Your task to perform on an android device: Clear all items from cart on costco.com. Image 0: 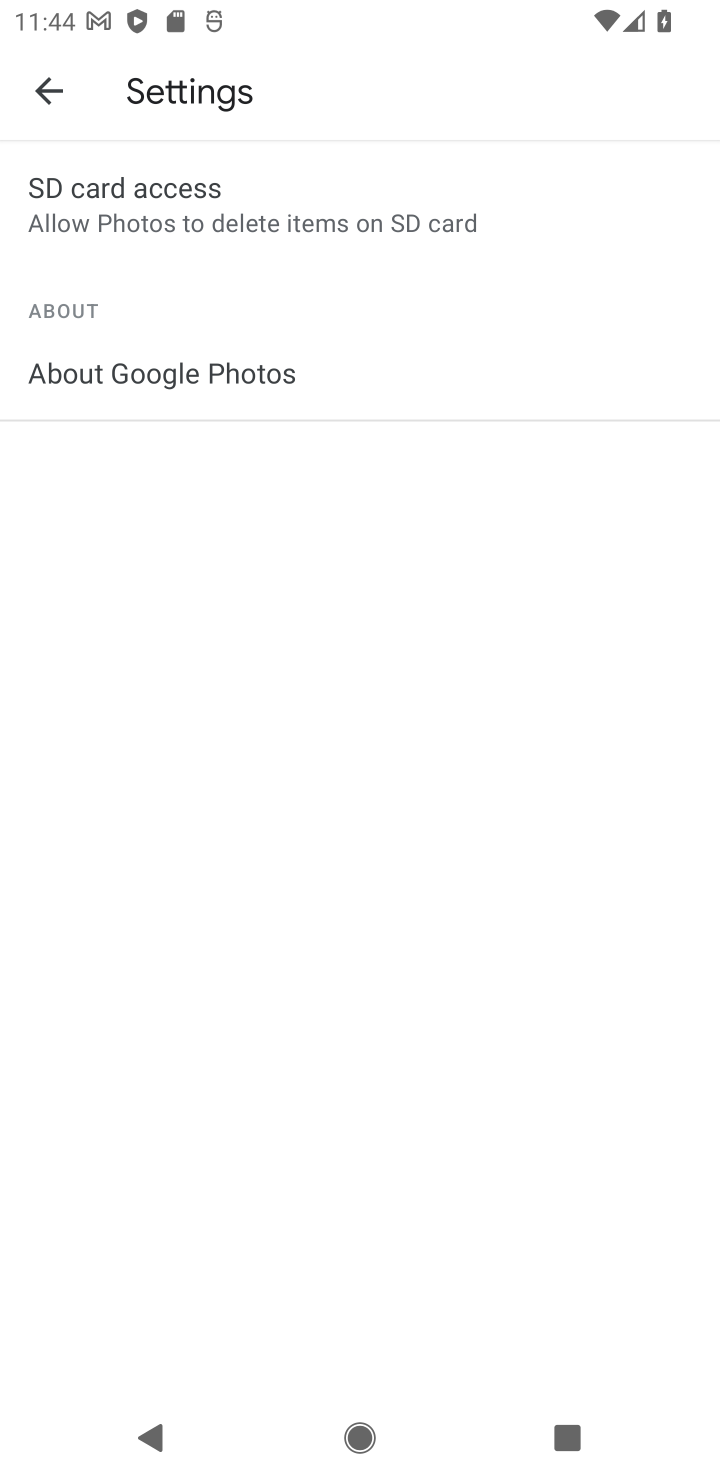
Step 0: press home button
Your task to perform on an android device: Clear all items from cart on costco.com. Image 1: 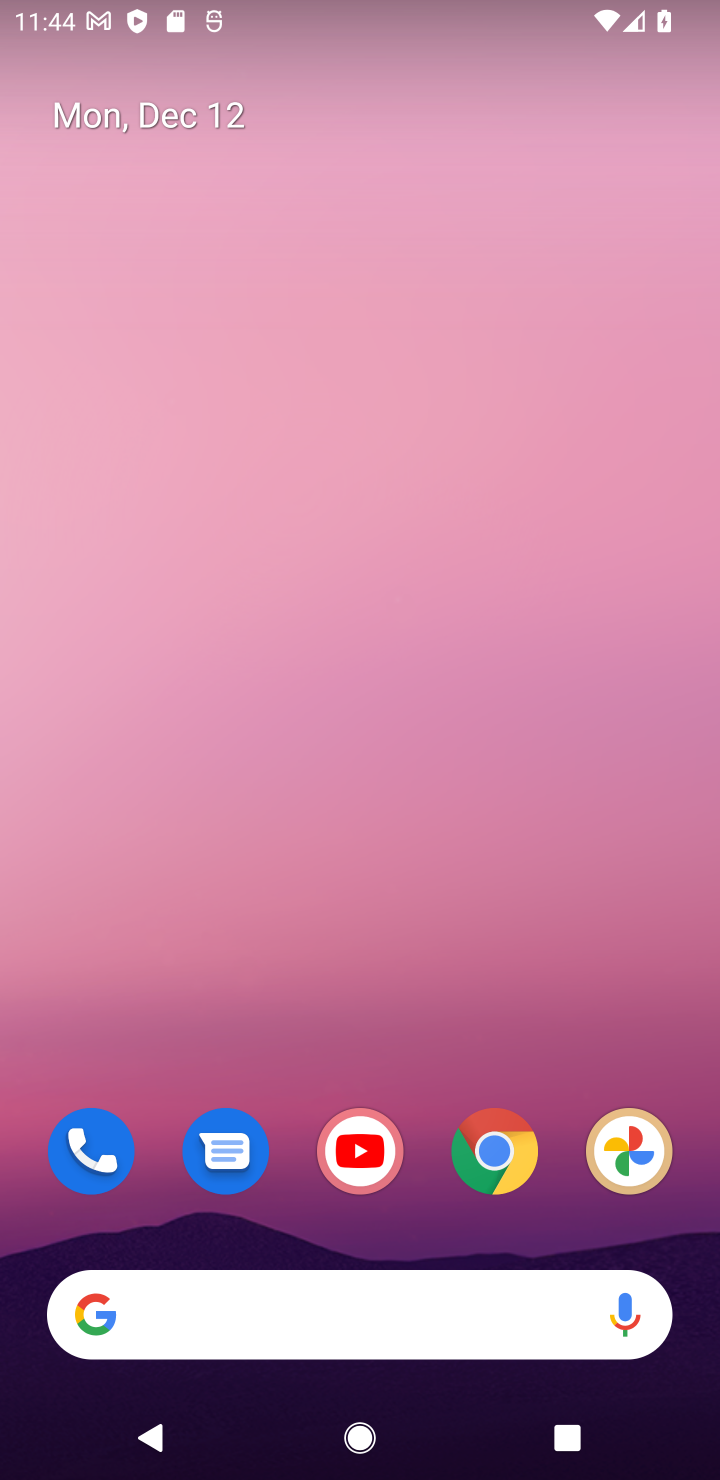
Step 1: drag from (456, 1274) to (484, 447)
Your task to perform on an android device: Clear all items from cart on costco.com. Image 2: 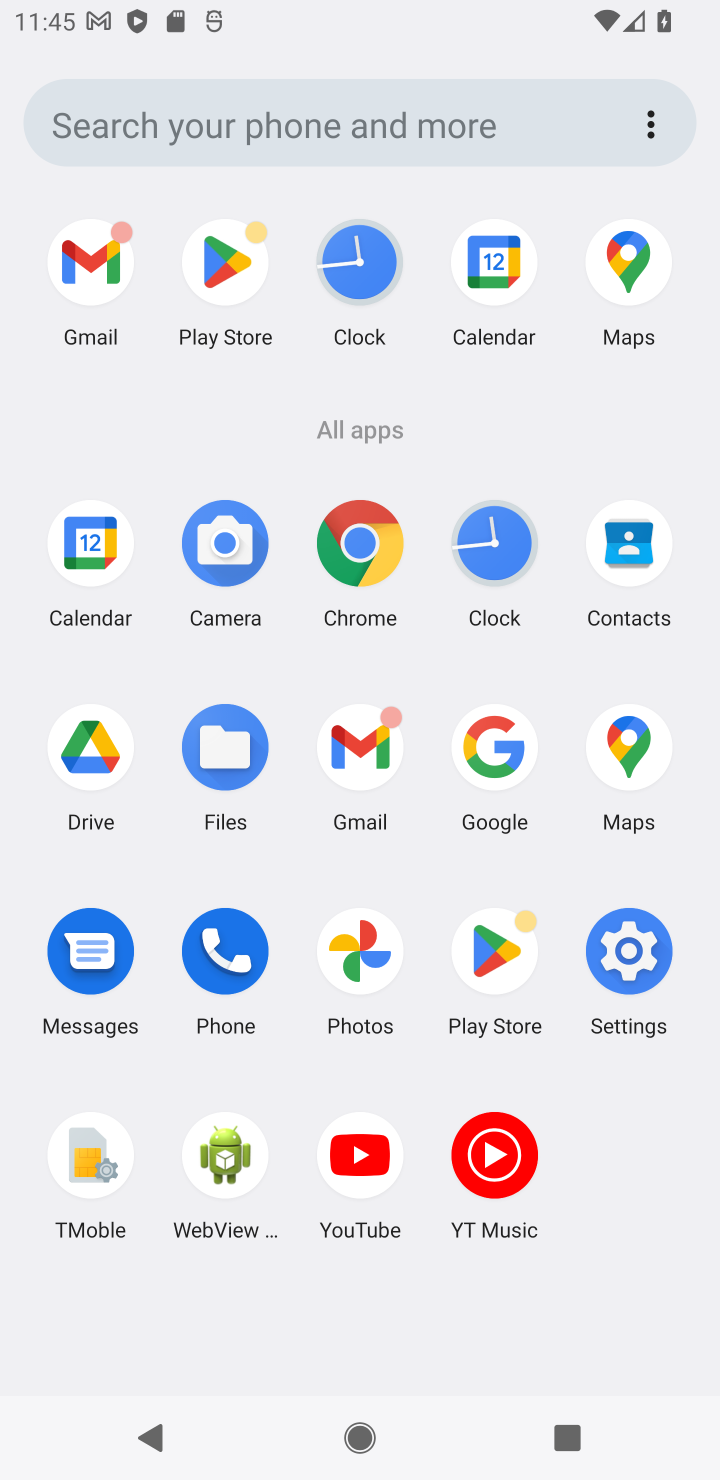
Step 2: click (490, 751)
Your task to perform on an android device: Clear all items from cart on costco.com. Image 3: 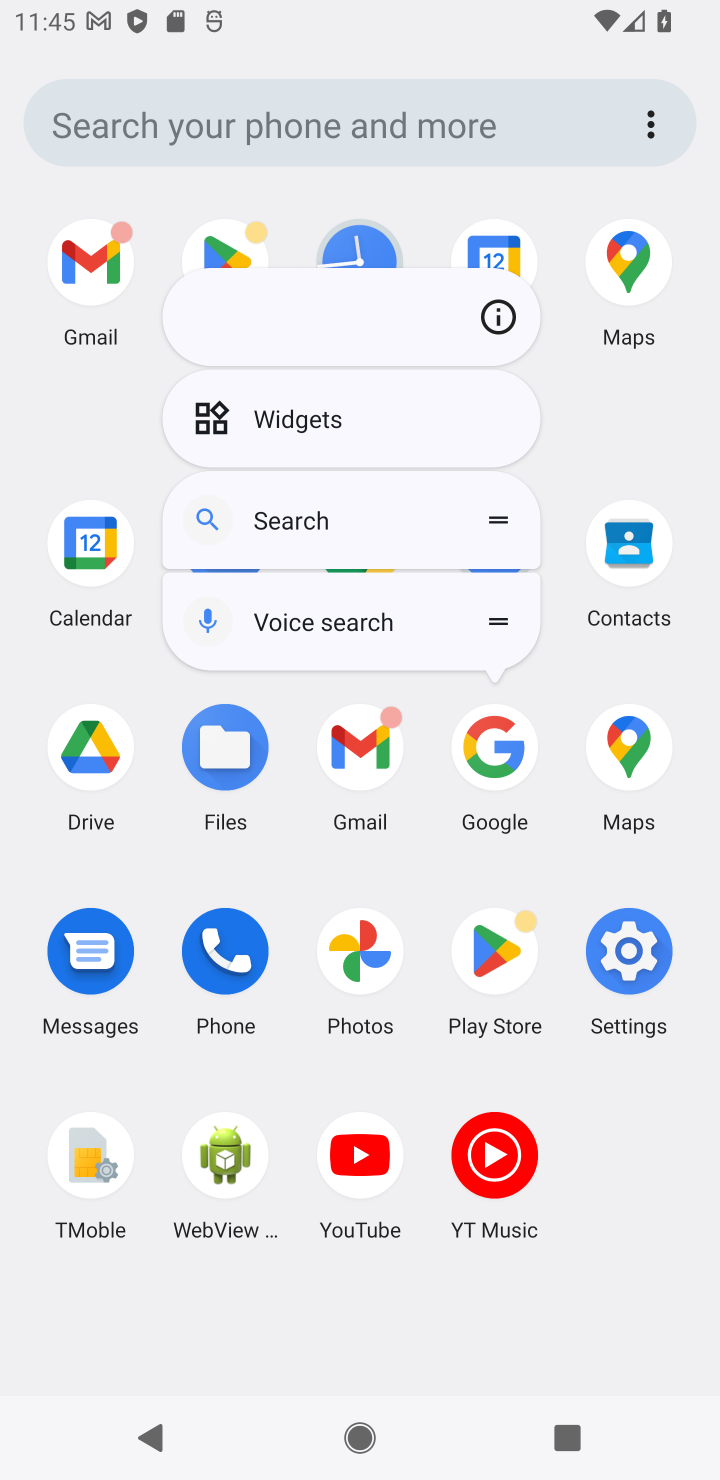
Step 3: click (492, 772)
Your task to perform on an android device: Clear all items from cart on costco.com. Image 4: 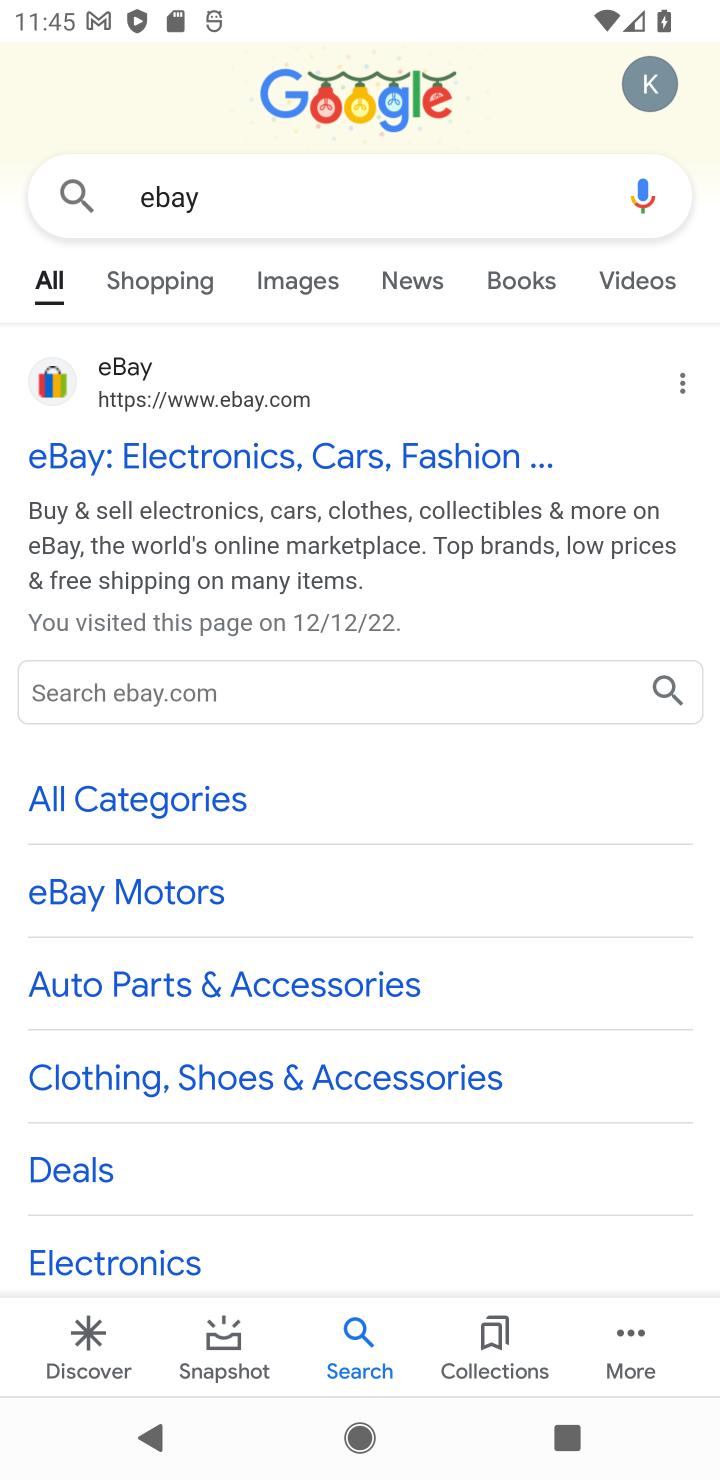
Step 4: click (171, 197)
Your task to perform on an android device: Clear all items from cart on costco.com. Image 5: 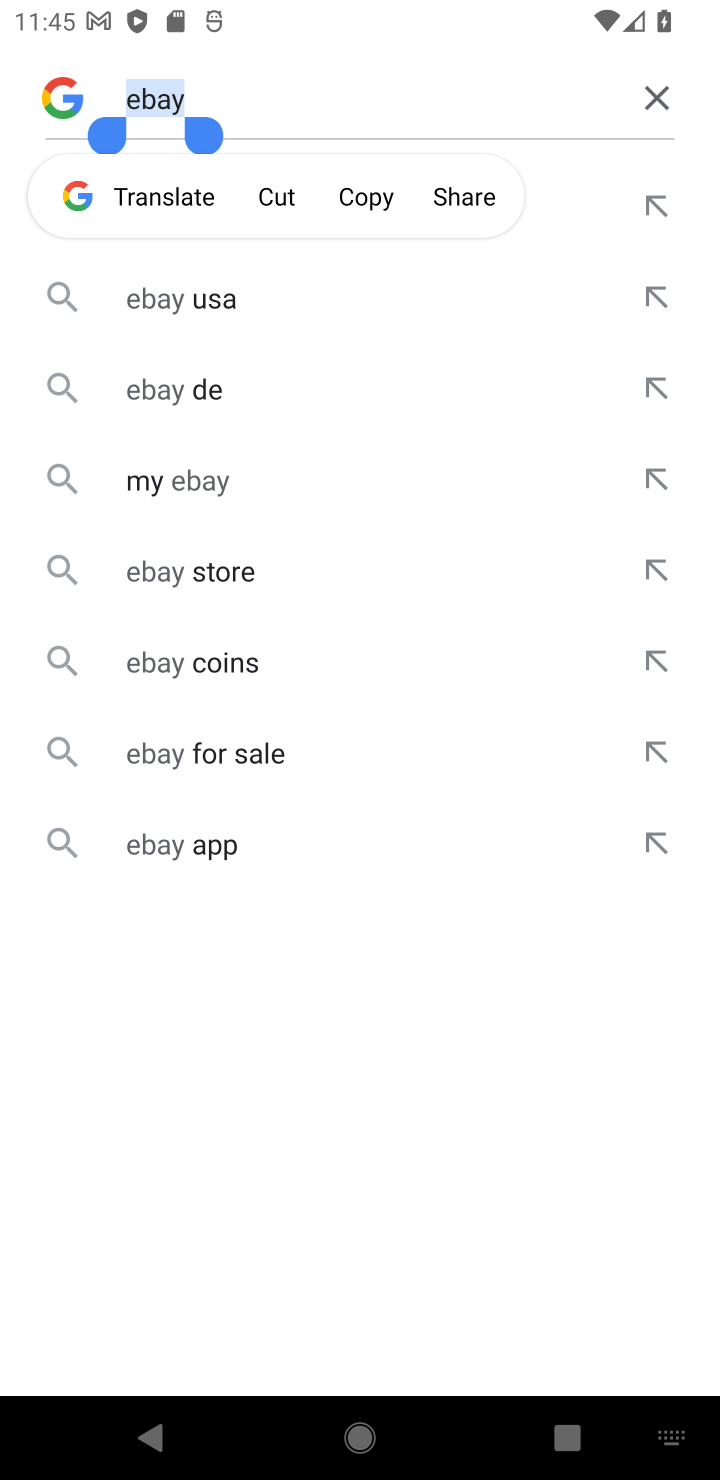
Step 5: click (662, 102)
Your task to perform on an android device: Clear all items from cart on costco.com. Image 6: 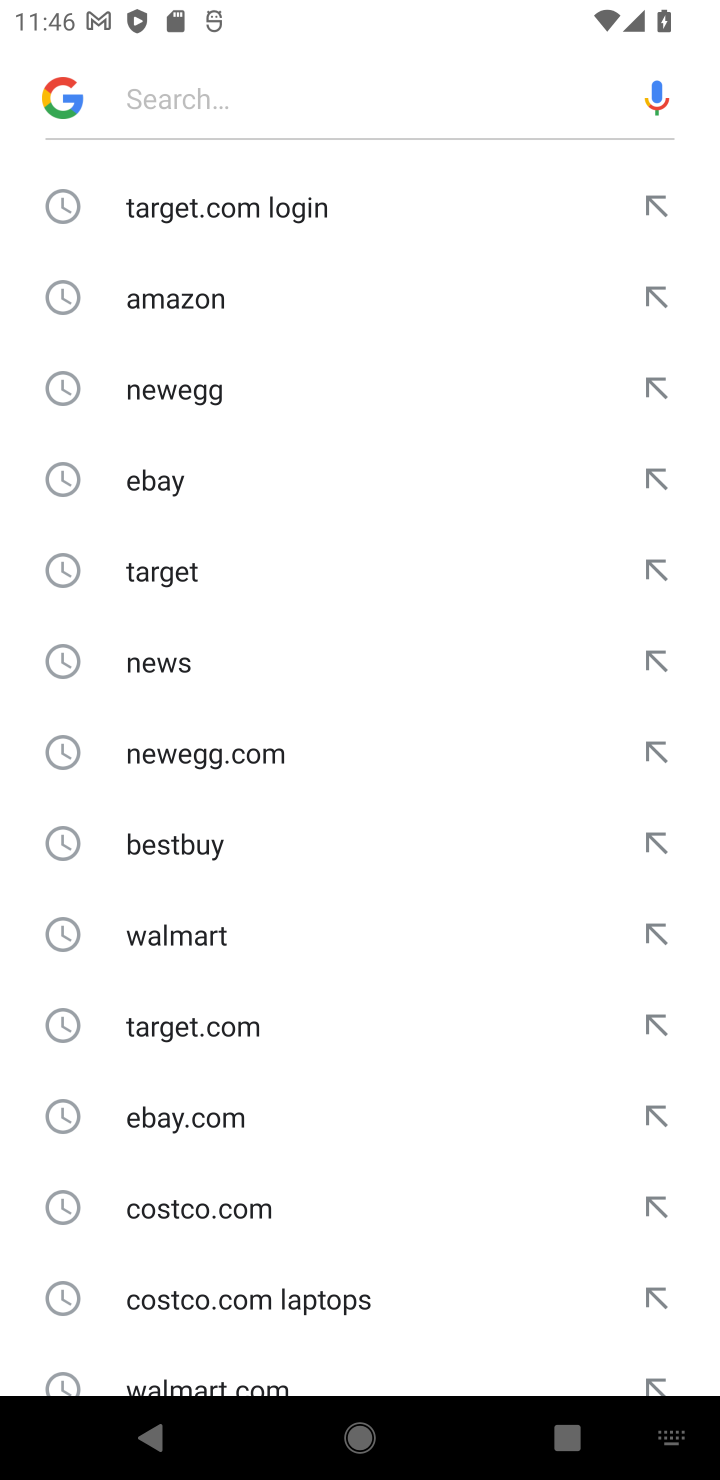
Step 6: click (183, 1215)
Your task to perform on an android device: Clear all items from cart on costco.com. Image 7: 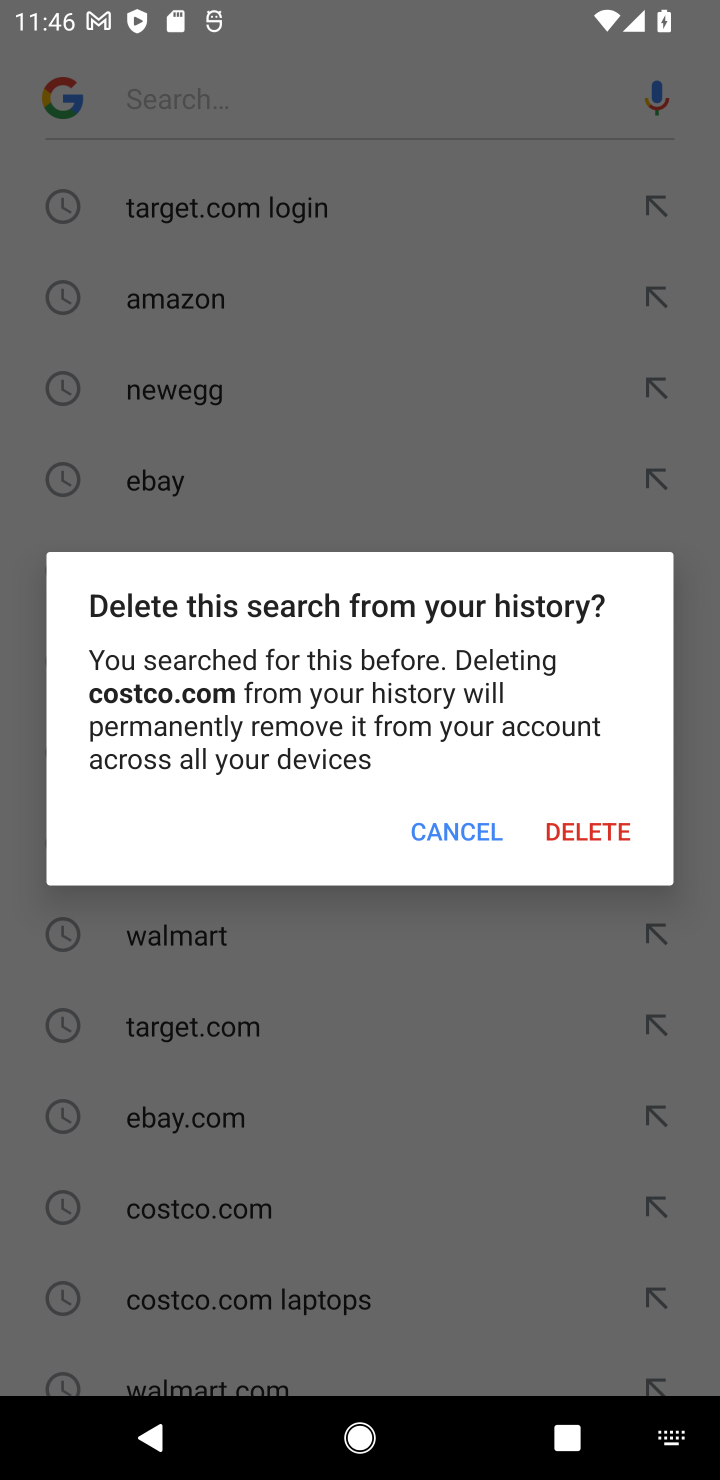
Step 7: click (467, 826)
Your task to perform on an android device: Clear all items from cart on costco.com. Image 8: 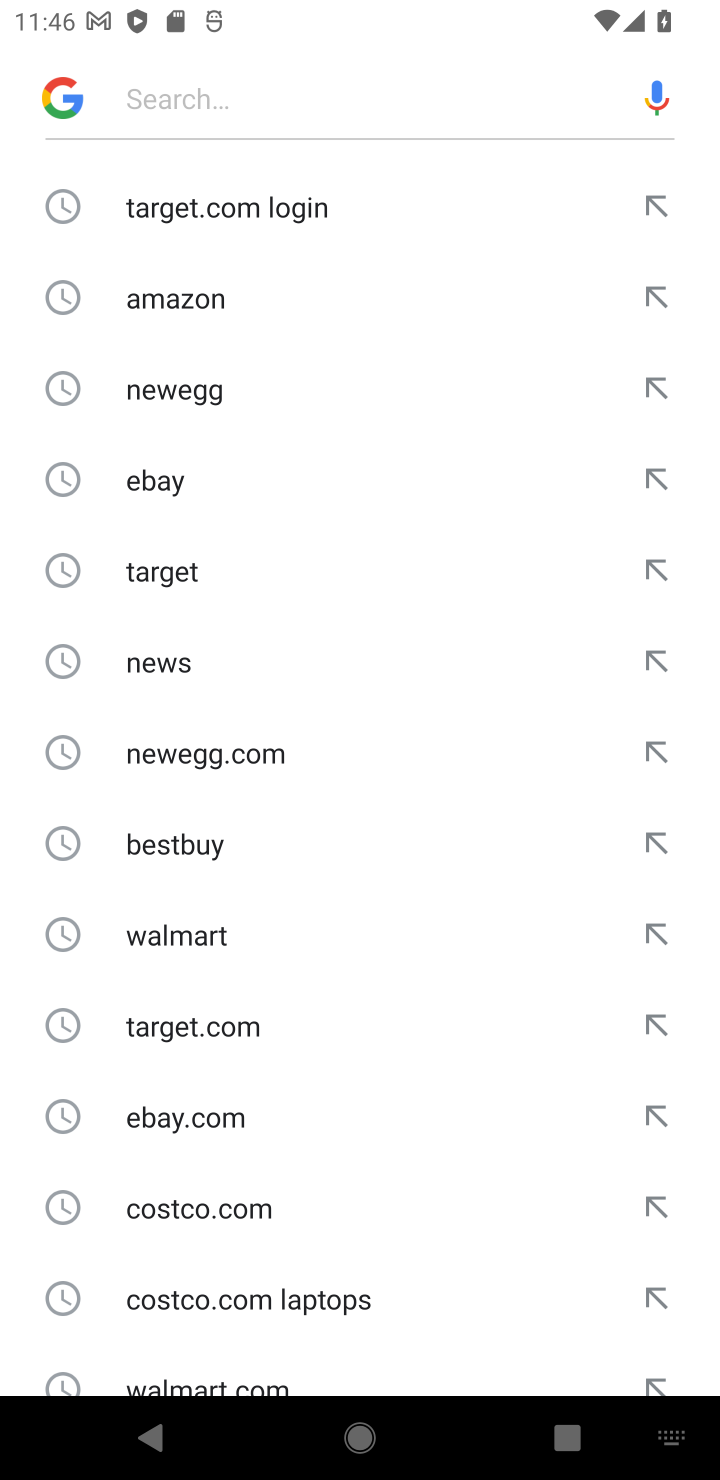
Step 8: click (181, 1213)
Your task to perform on an android device: Clear all items from cart on costco.com. Image 9: 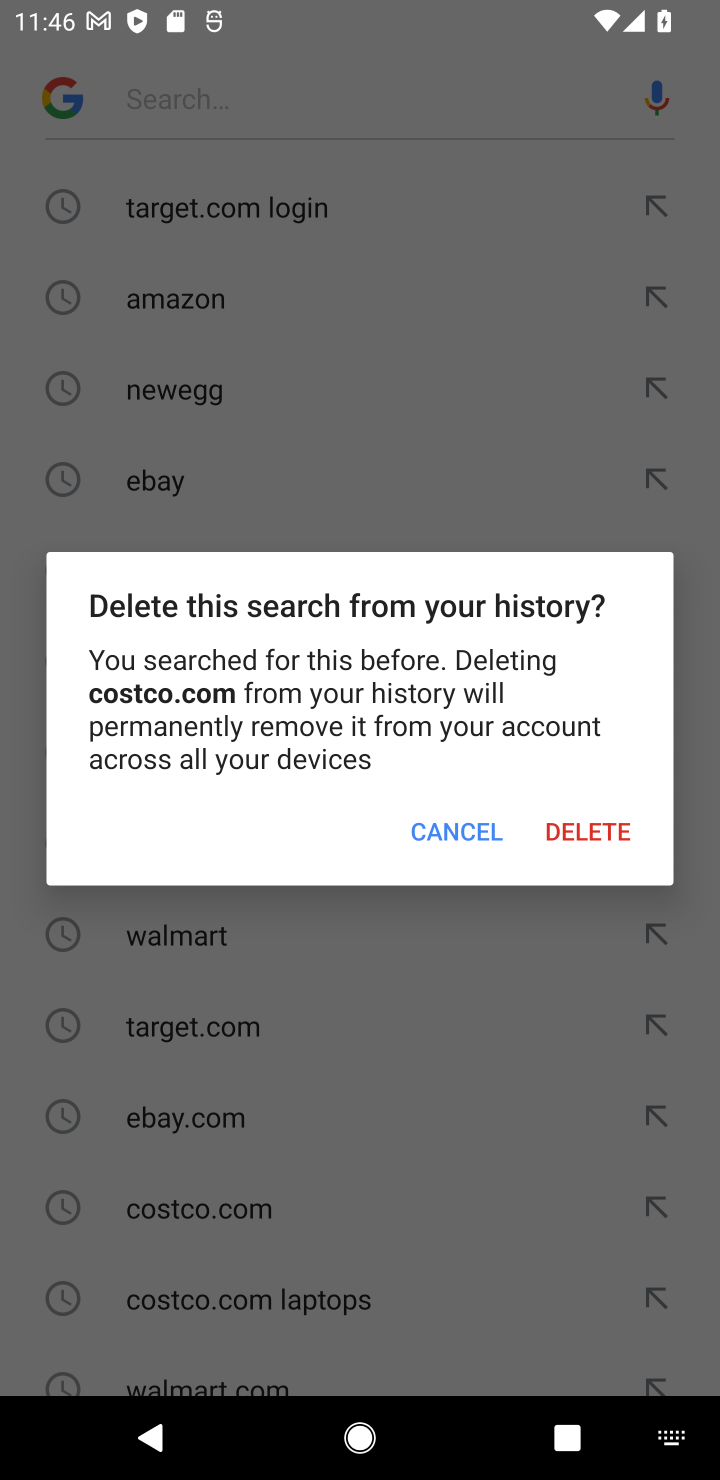
Step 9: click (420, 825)
Your task to perform on an android device: Clear all items from cart on costco.com. Image 10: 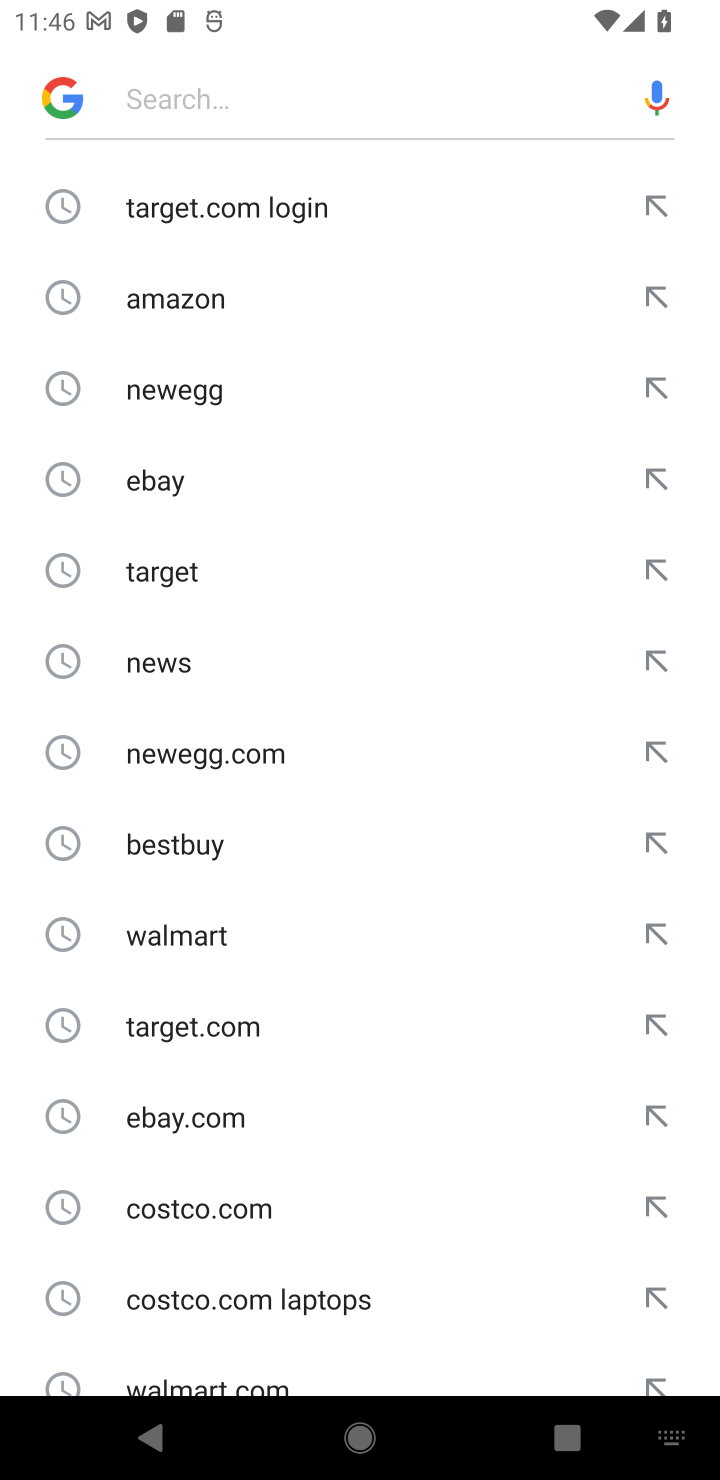
Step 10: click (662, 1212)
Your task to perform on an android device: Clear all items from cart on costco.com. Image 11: 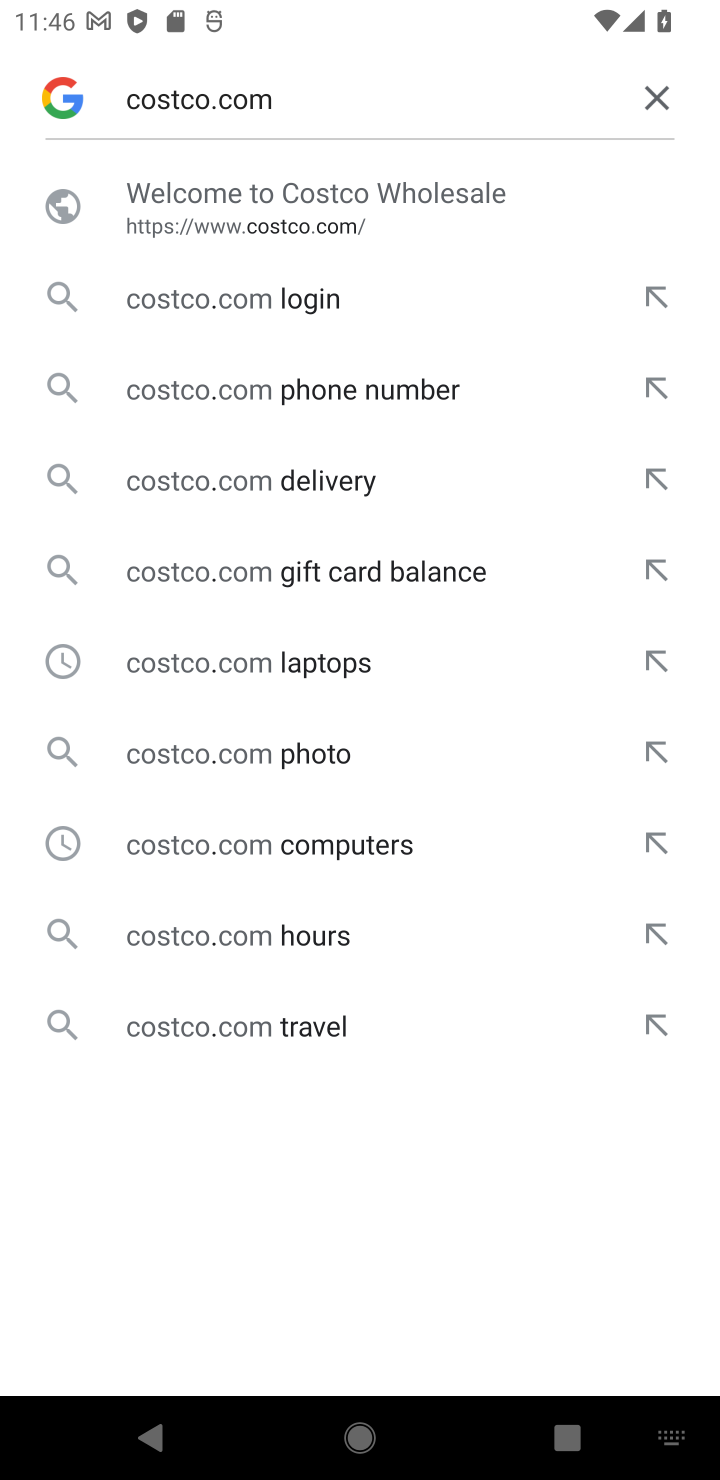
Step 11: click (174, 207)
Your task to perform on an android device: Clear all items from cart on costco.com. Image 12: 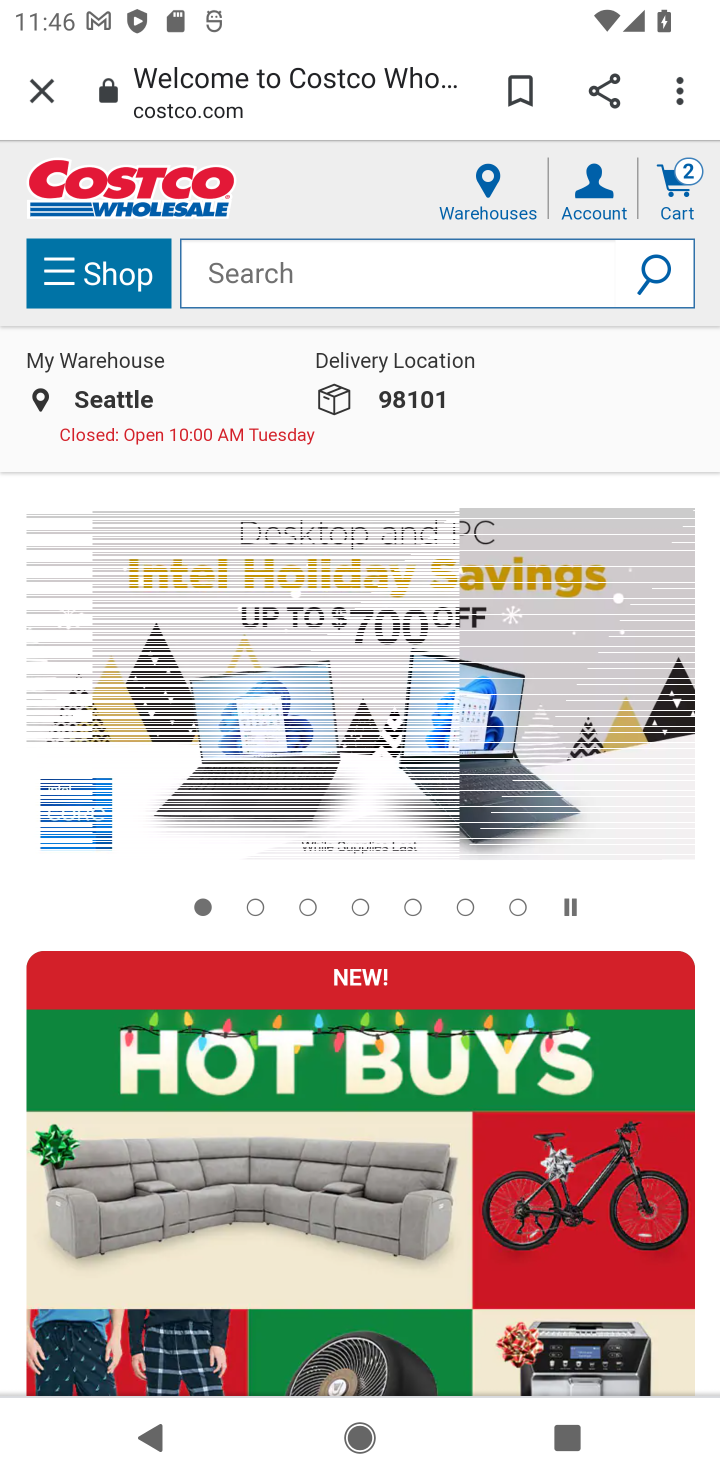
Step 12: click (659, 184)
Your task to perform on an android device: Clear all items from cart on costco.com. Image 13: 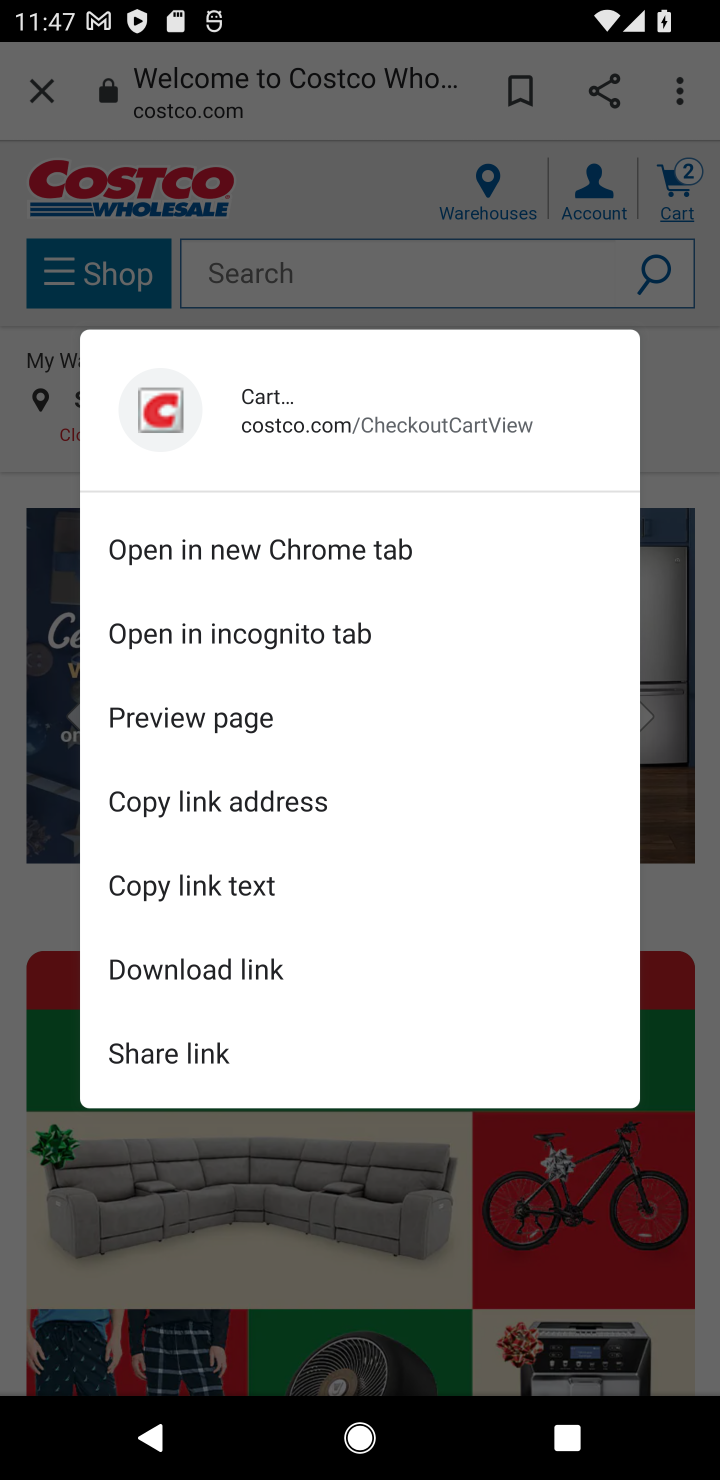
Step 13: click (655, 390)
Your task to perform on an android device: Clear all items from cart on costco.com. Image 14: 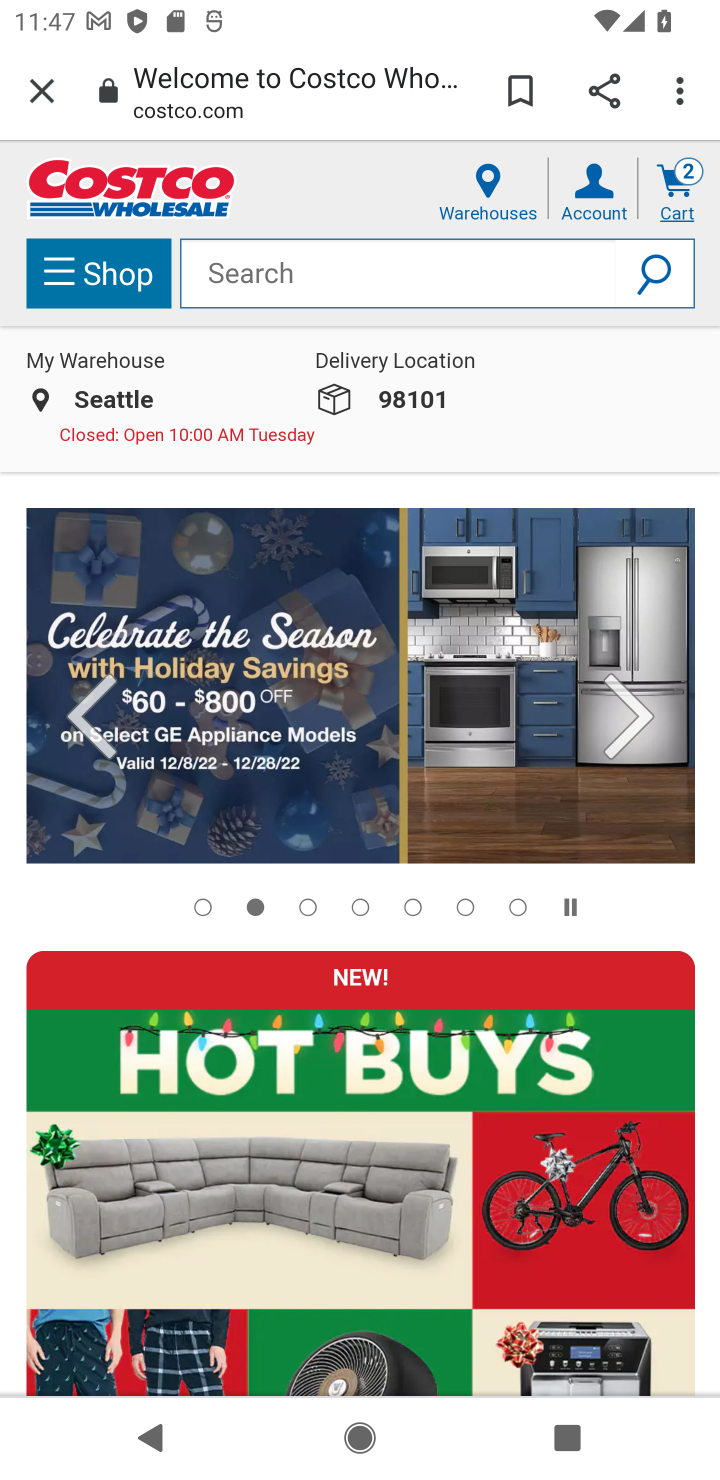
Step 14: drag from (501, 849) to (499, 353)
Your task to perform on an android device: Clear all items from cart on costco.com. Image 15: 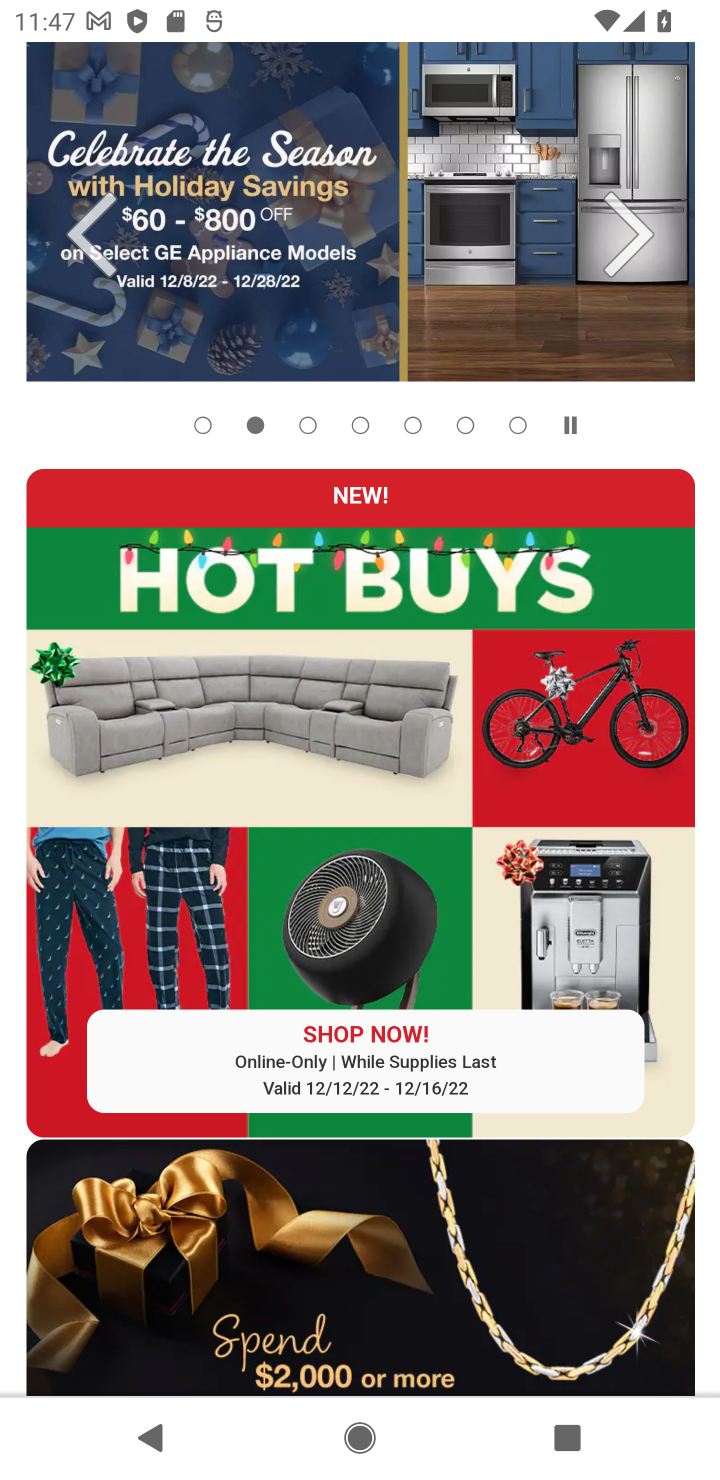
Step 15: drag from (511, 545) to (505, 833)
Your task to perform on an android device: Clear all items from cart on costco.com. Image 16: 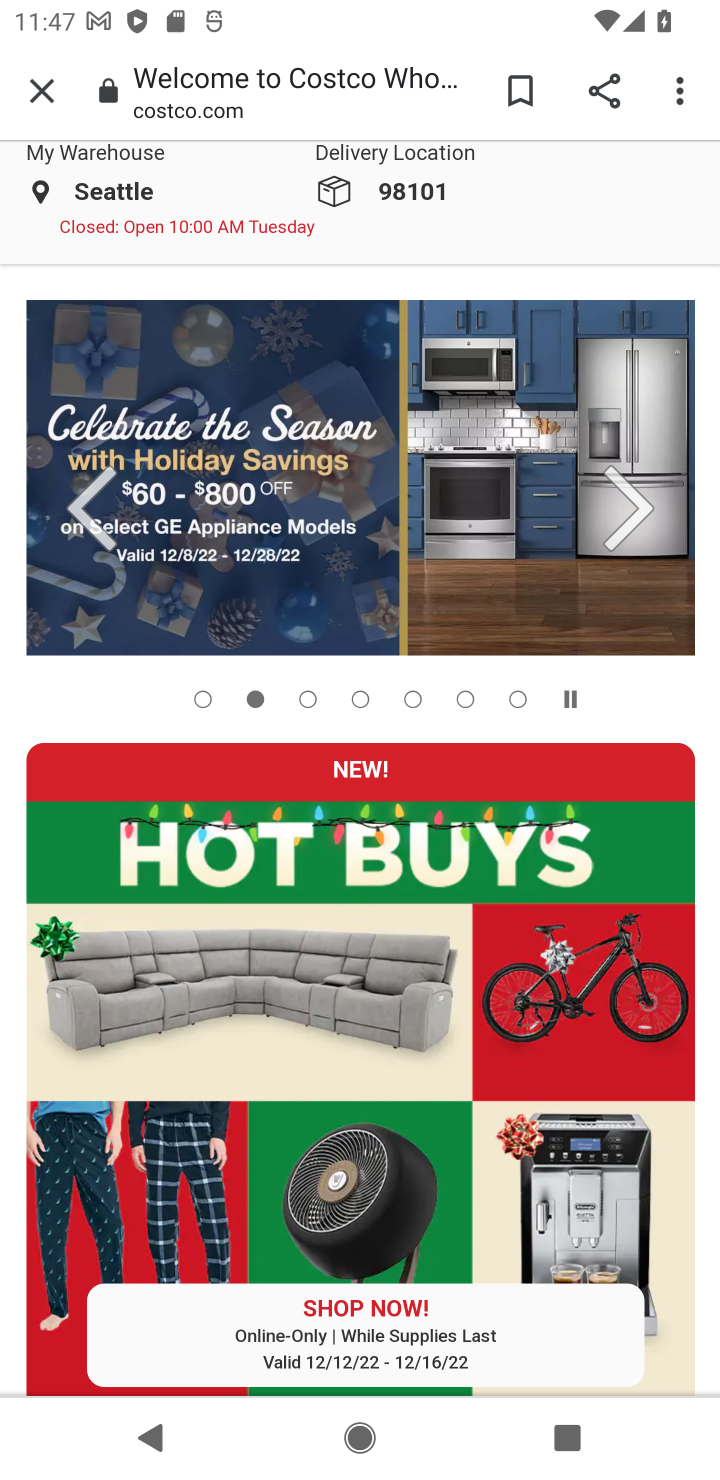
Step 16: drag from (505, 205) to (521, 855)
Your task to perform on an android device: Clear all items from cart on costco.com. Image 17: 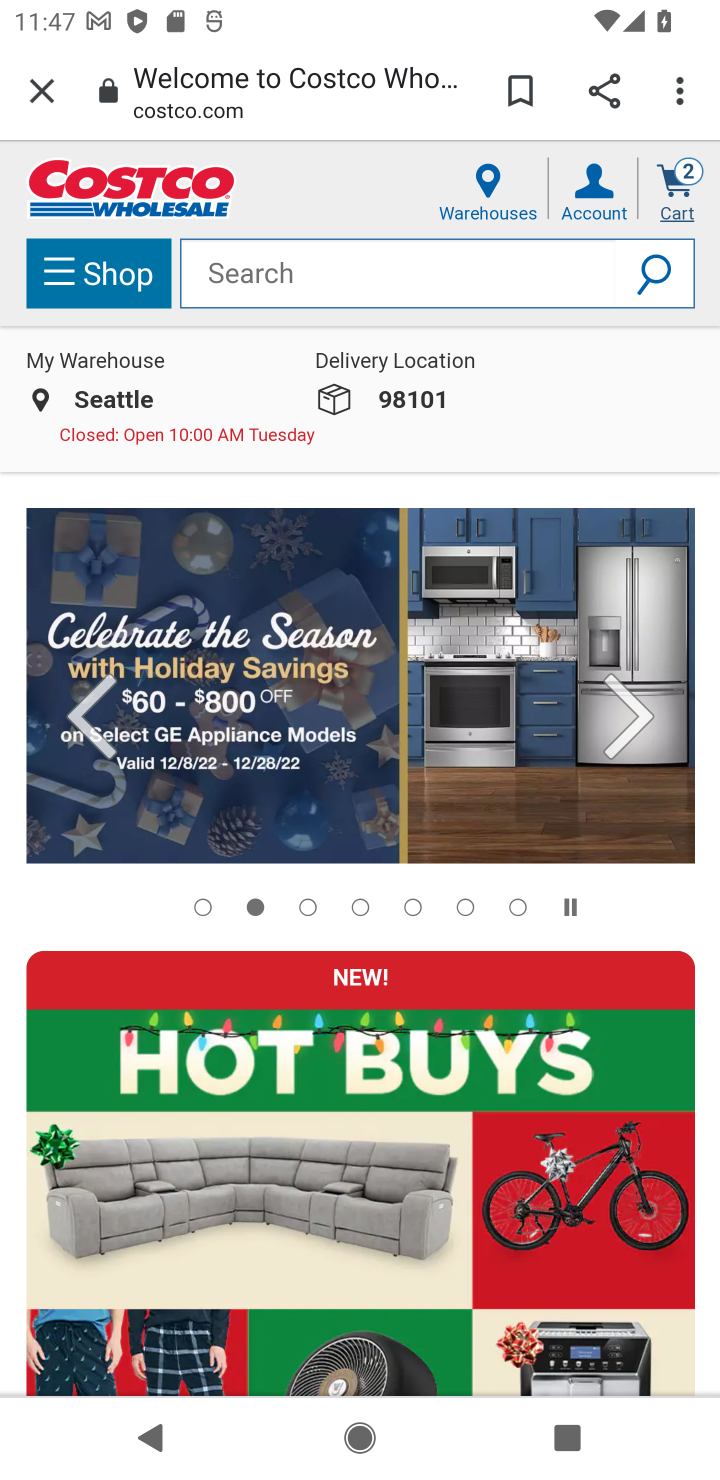
Step 17: click (677, 170)
Your task to perform on an android device: Clear all items from cart on costco.com. Image 18: 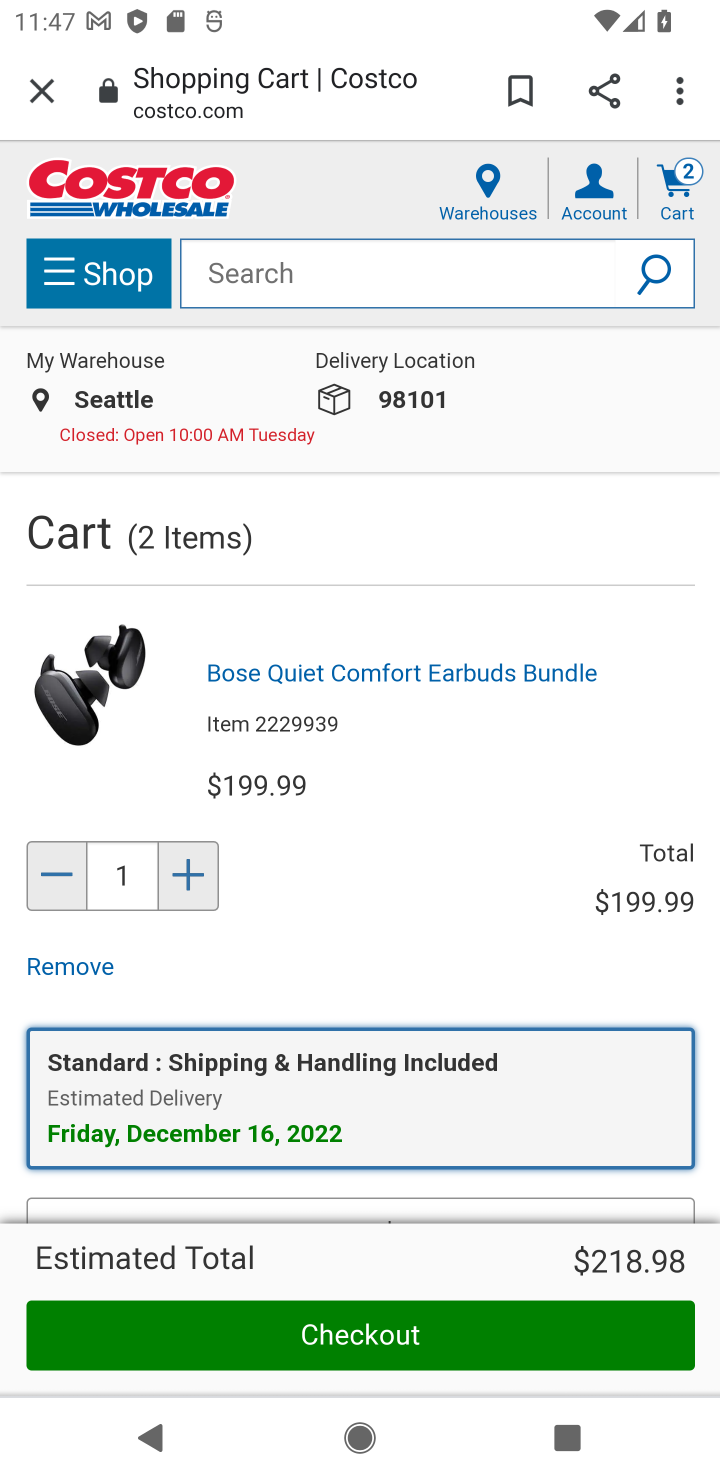
Step 18: click (54, 877)
Your task to perform on an android device: Clear all items from cart on costco.com. Image 19: 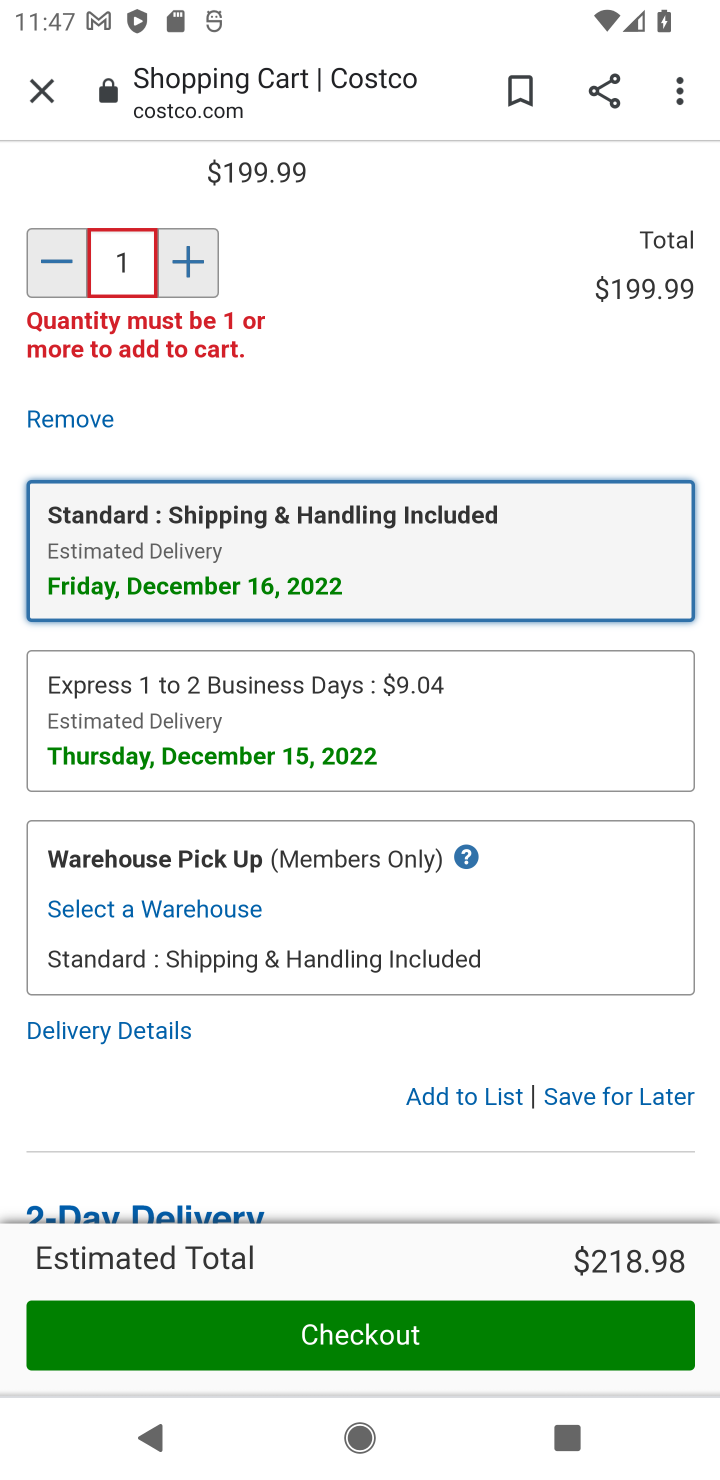
Step 19: click (101, 408)
Your task to perform on an android device: Clear all items from cart on costco.com. Image 20: 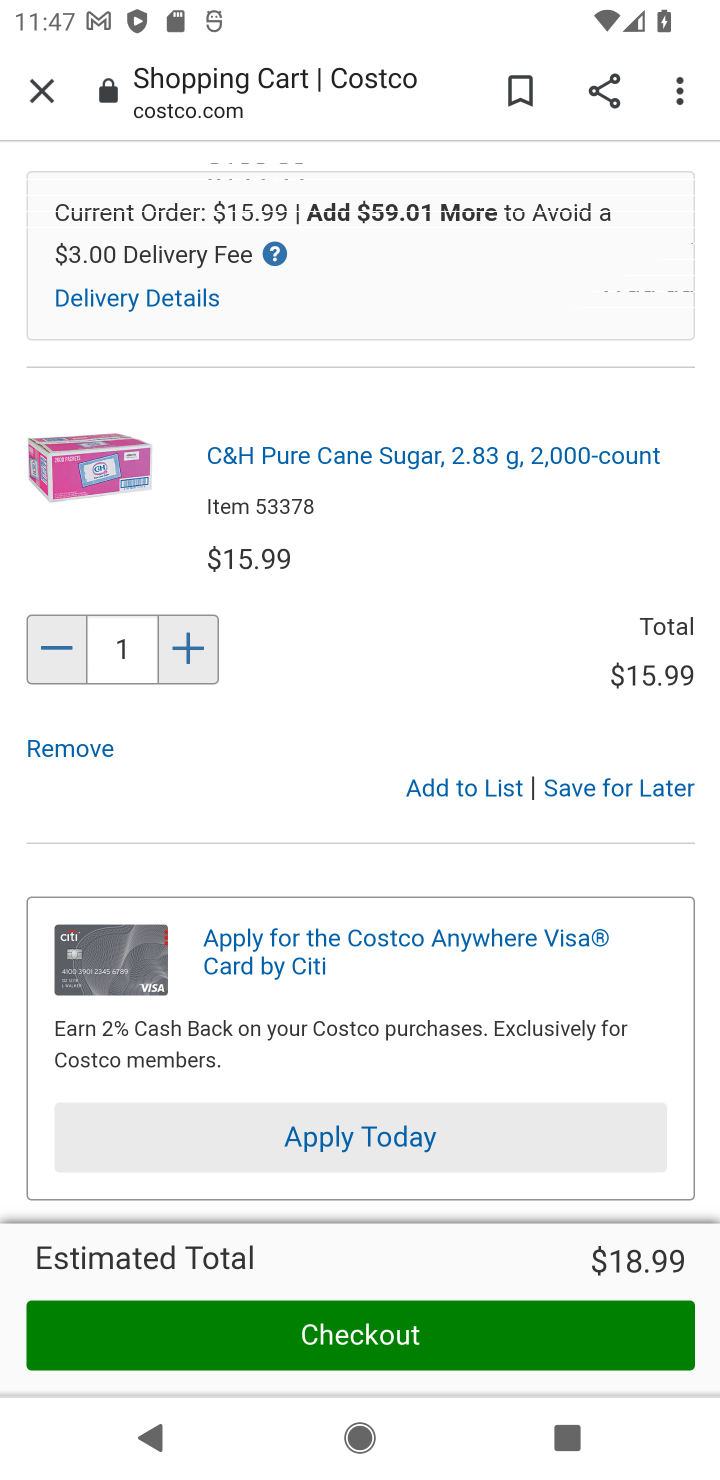
Step 20: click (88, 736)
Your task to perform on an android device: Clear all items from cart on costco.com. Image 21: 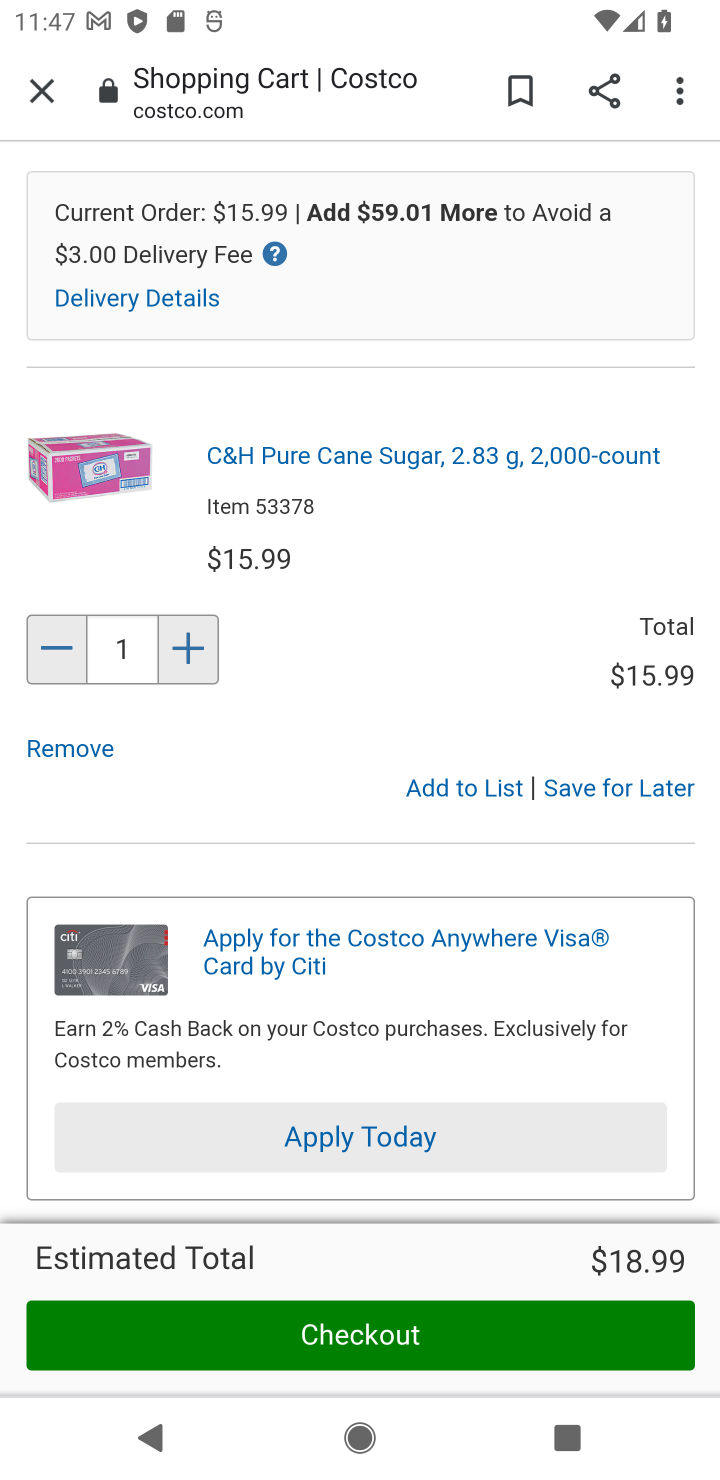
Step 21: click (94, 757)
Your task to perform on an android device: Clear all items from cart on costco.com. Image 22: 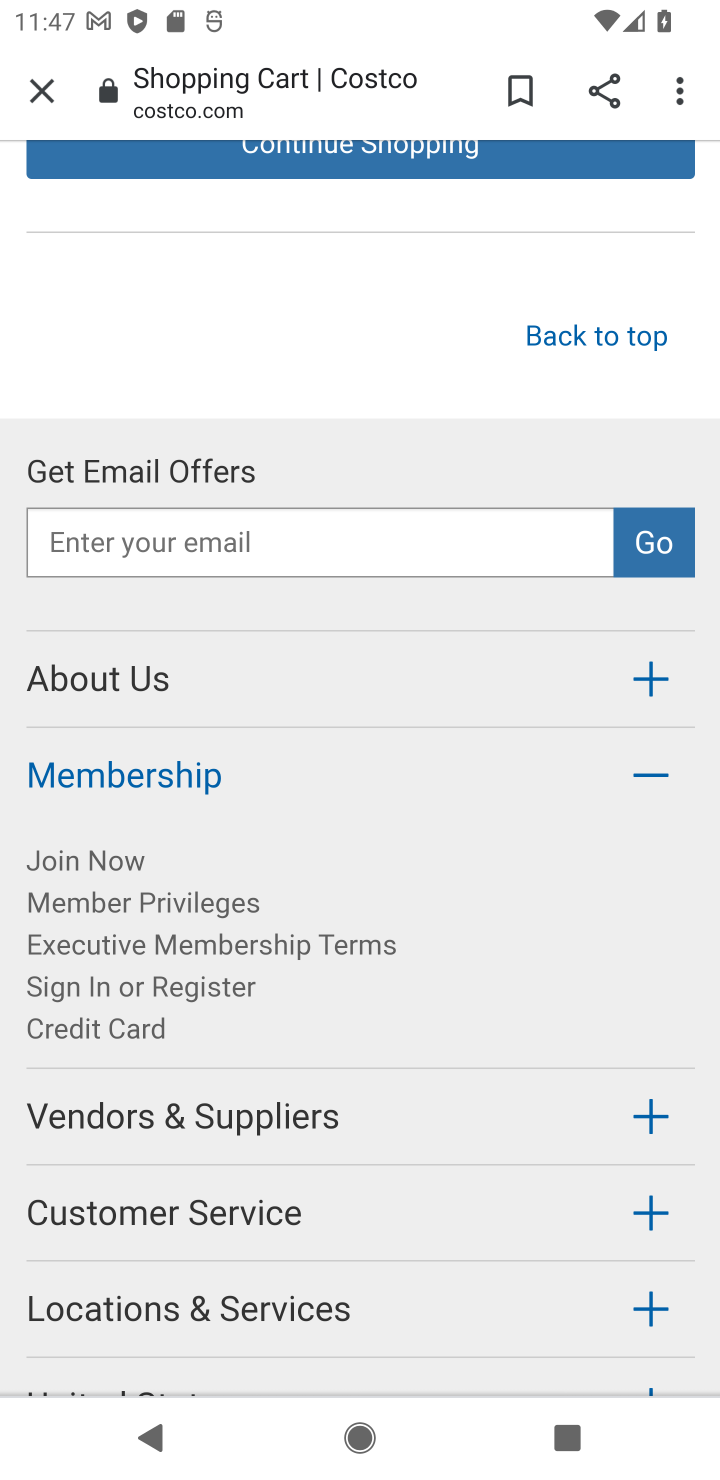
Step 22: task complete